Your task to perform on an android device: turn off picture-in-picture Image 0: 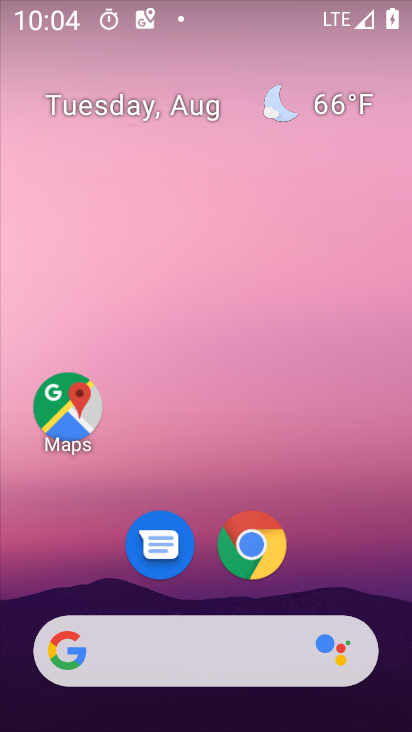
Step 0: drag from (208, 601) to (268, 61)
Your task to perform on an android device: turn off picture-in-picture Image 1: 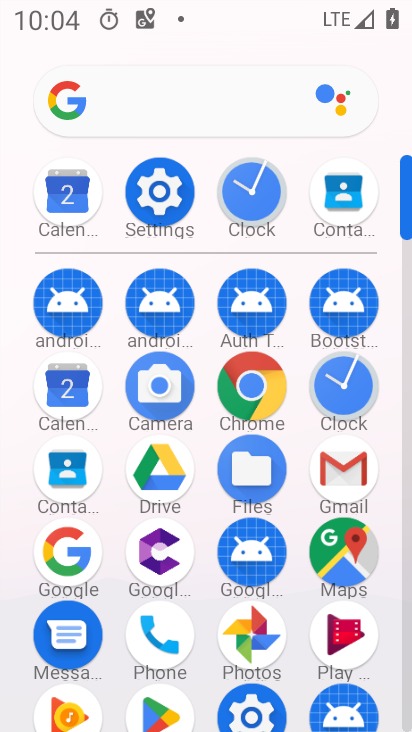
Step 1: click (137, 206)
Your task to perform on an android device: turn off picture-in-picture Image 2: 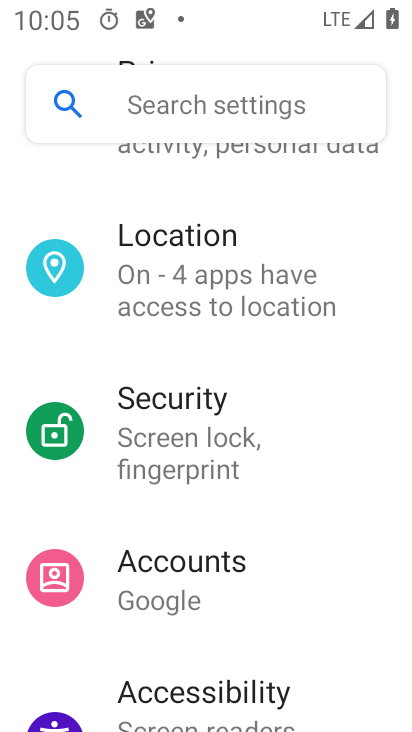
Step 2: drag from (207, 343) to (152, 719)
Your task to perform on an android device: turn off picture-in-picture Image 3: 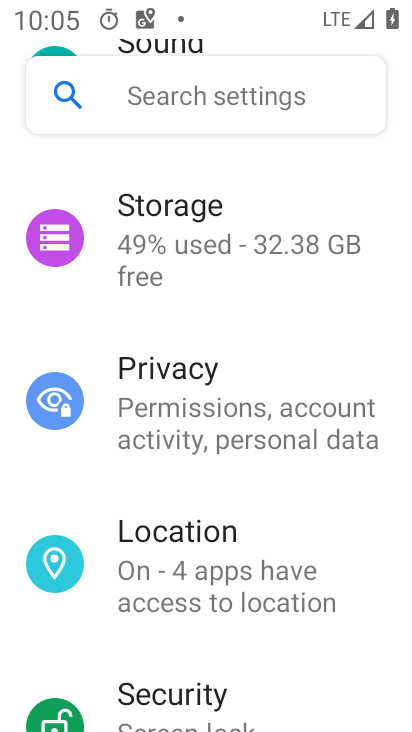
Step 3: drag from (237, 344) to (209, 727)
Your task to perform on an android device: turn off picture-in-picture Image 4: 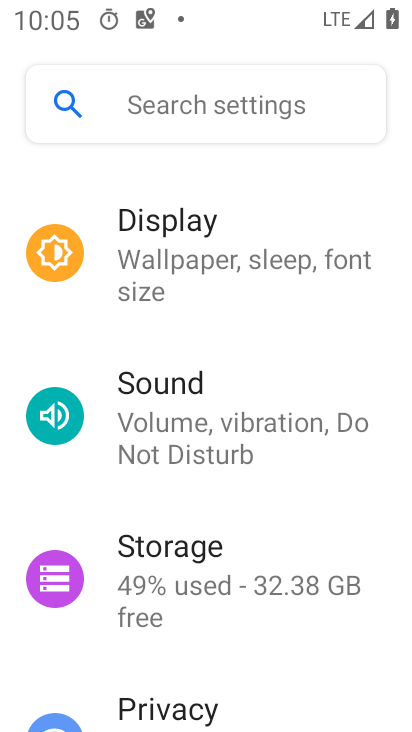
Step 4: drag from (209, 316) to (204, 588)
Your task to perform on an android device: turn off picture-in-picture Image 5: 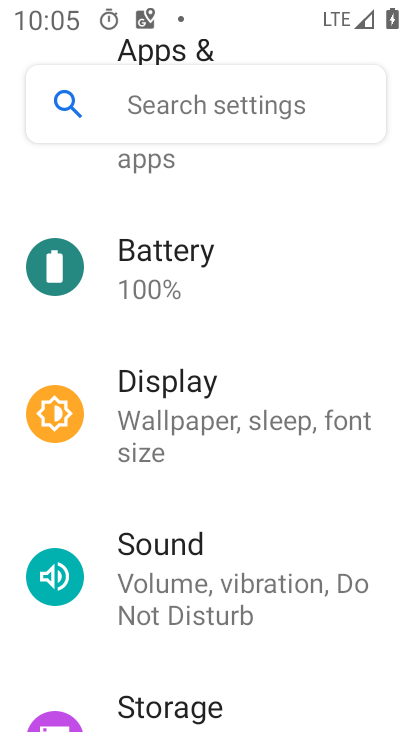
Step 5: drag from (224, 311) to (245, 719)
Your task to perform on an android device: turn off picture-in-picture Image 6: 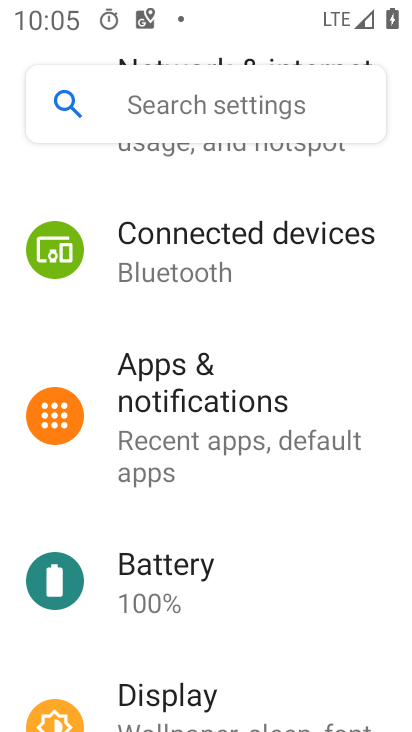
Step 6: click (256, 420)
Your task to perform on an android device: turn off picture-in-picture Image 7: 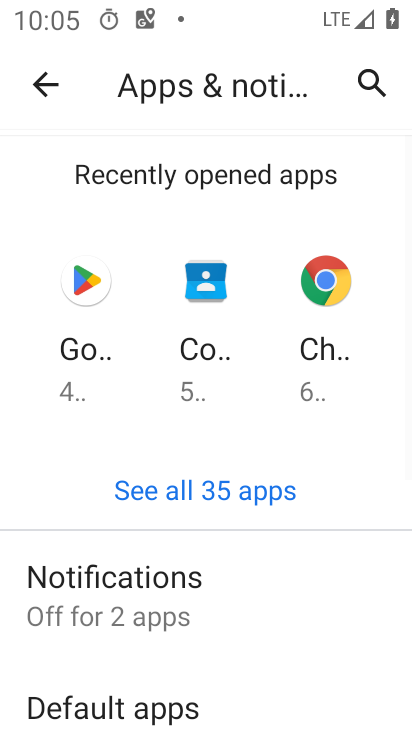
Step 7: drag from (191, 582) to (301, 0)
Your task to perform on an android device: turn off picture-in-picture Image 8: 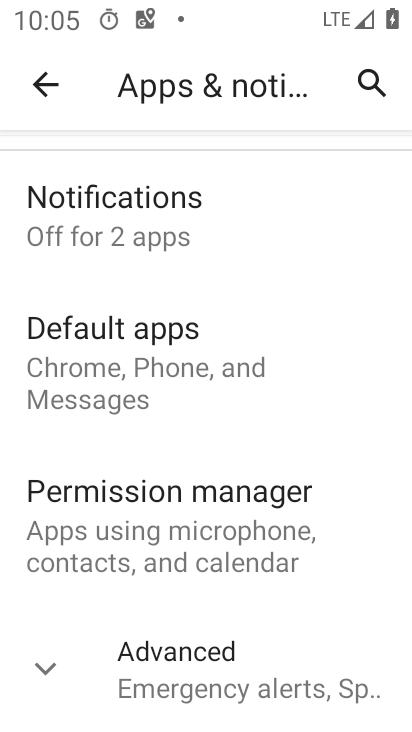
Step 8: click (208, 669)
Your task to perform on an android device: turn off picture-in-picture Image 9: 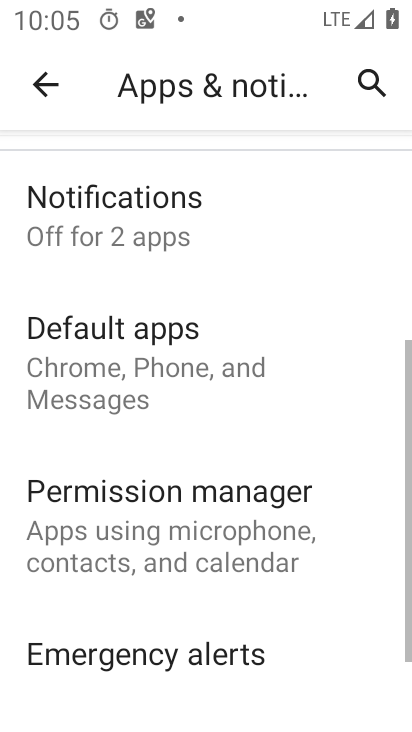
Step 9: drag from (208, 558) to (210, 109)
Your task to perform on an android device: turn off picture-in-picture Image 10: 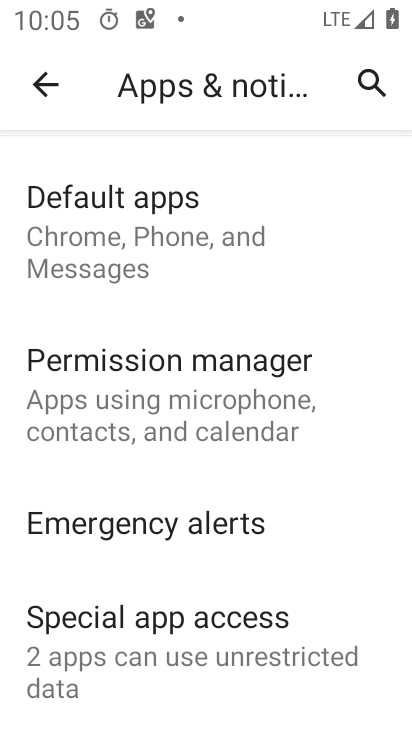
Step 10: click (139, 643)
Your task to perform on an android device: turn off picture-in-picture Image 11: 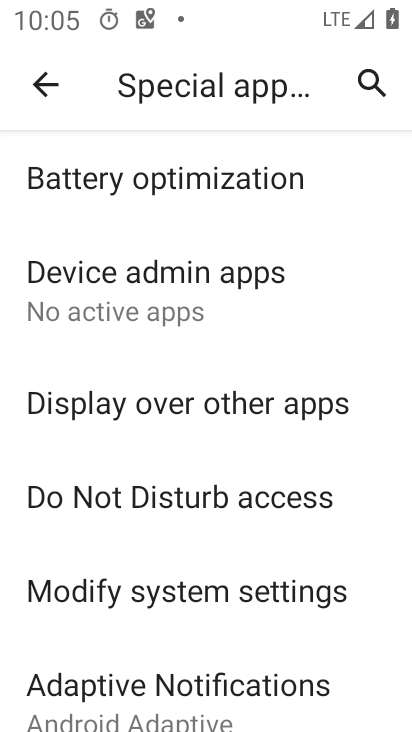
Step 11: drag from (157, 532) to (194, 131)
Your task to perform on an android device: turn off picture-in-picture Image 12: 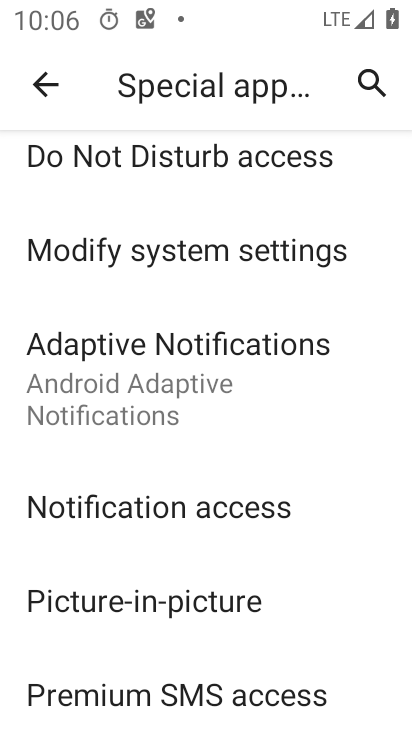
Step 12: click (168, 596)
Your task to perform on an android device: turn off picture-in-picture Image 13: 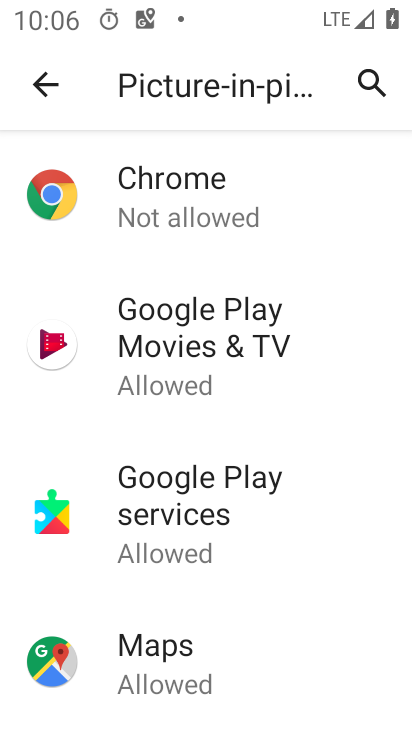
Step 13: click (238, 224)
Your task to perform on an android device: turn off picture-in-picture Image 14: 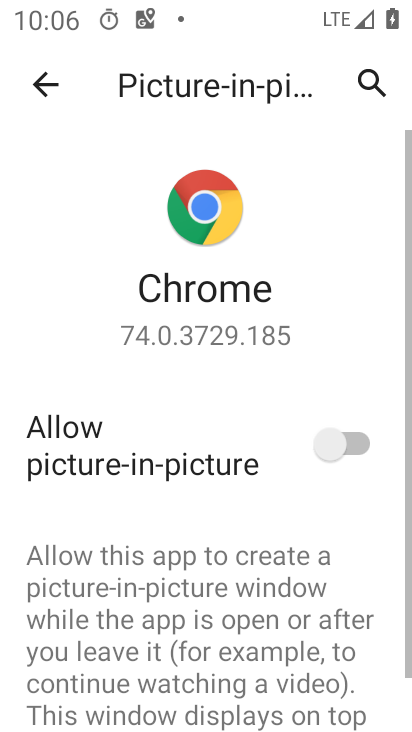
Step 14: click (21, 82)
Your task to perform on an android device: turn off picture-in-picture Image 15: 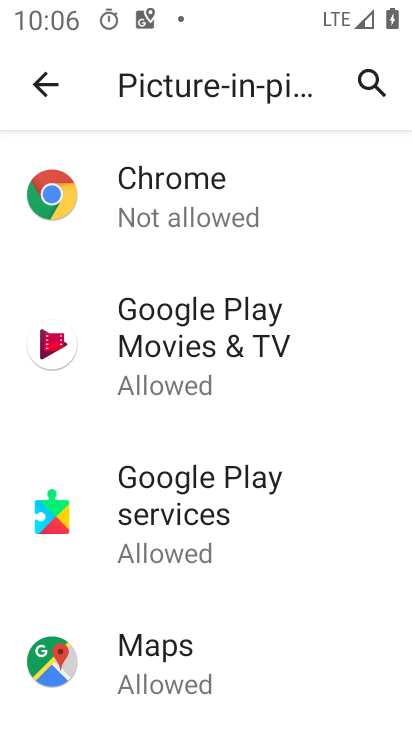
Step 15: click (147, 358)
Your task to perform on an android device: turn off picture-in-picture Image 16: 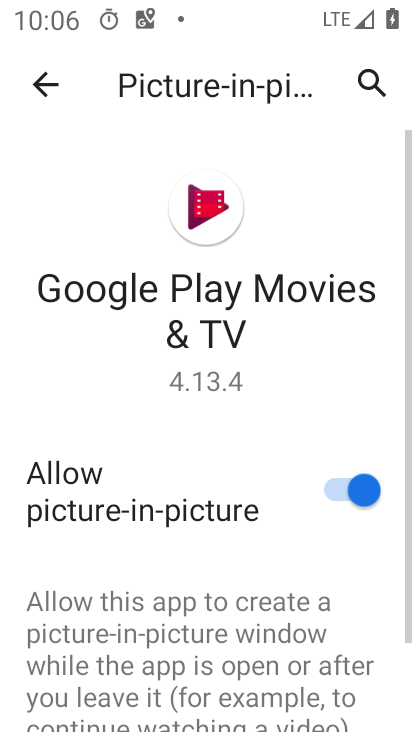
Step 16: click (336, 485)
Your task to perform on an android device: turn off picture-in-picture Image 17: 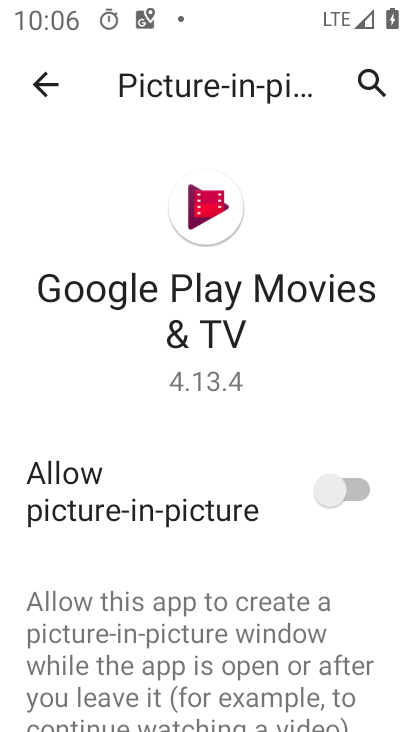
Step 17: task complete